Your task to perform on an android device: change the clock style Image 0: 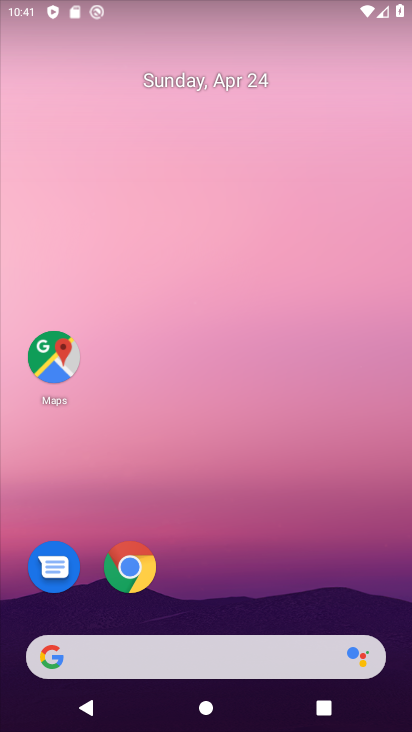
Step 0: drag from (247, 618) to (240, 22)
Your task to perform on an android device: change the clock style Image 1: 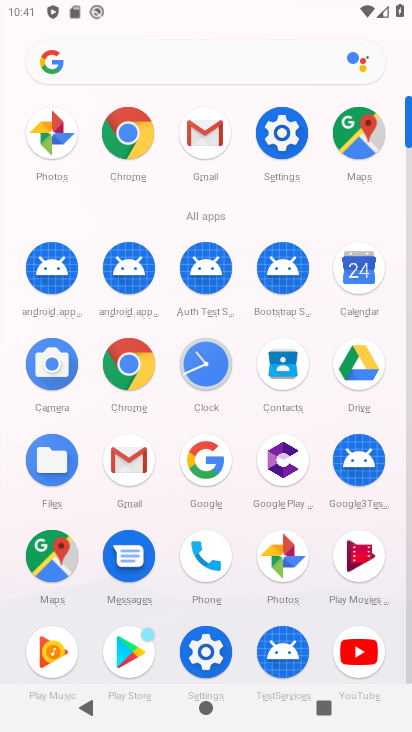
Step 1: drag from (306, 595) to (327, 133)
Your task to perform on an android device: change the clock style Image 2: 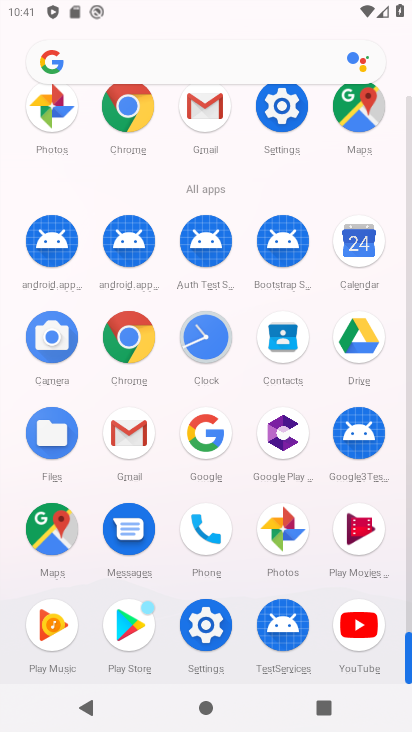
Step 2: click (200, 328)
Your task to perform on an android device: change the clock style Image 3: 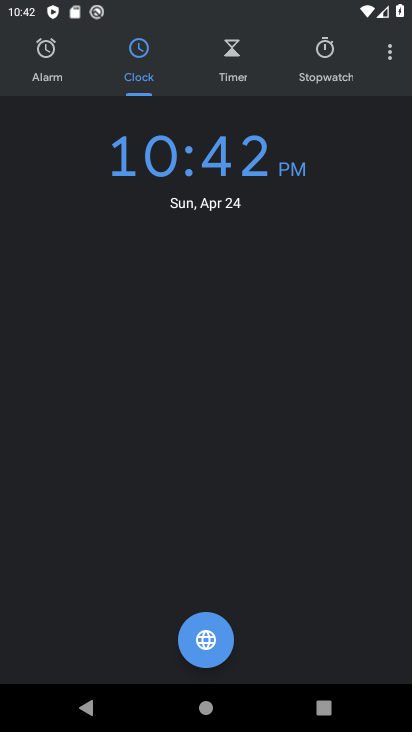
Step 3: click (391, 62)
Your task to perform on an android device: change the clock style Image 4: 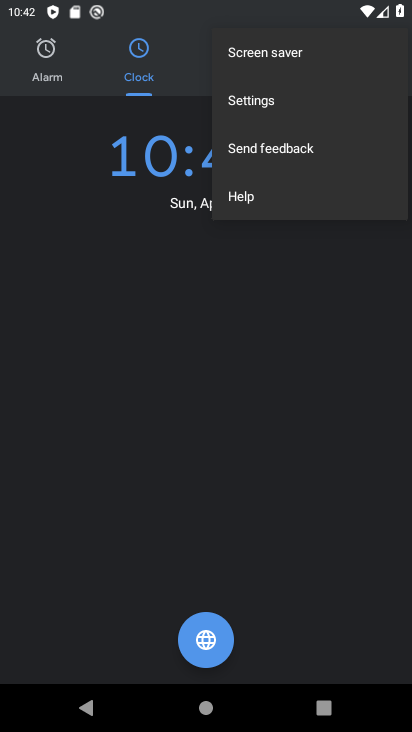
Step 4: click (281, 123)
Your task to perform on an android device: change the clock style Image 5: 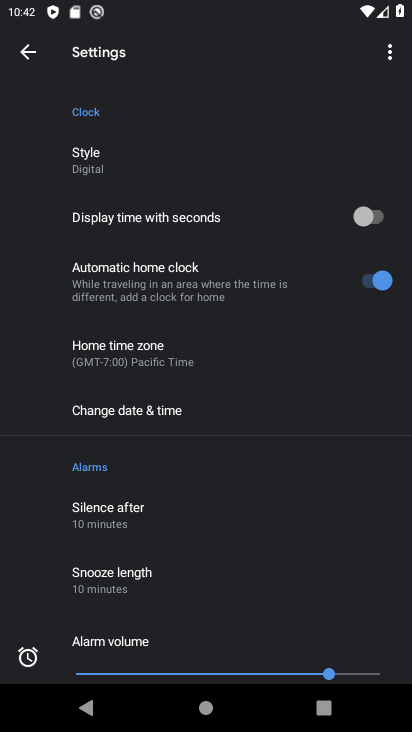
Step 5: click (126, 175)
Your task to perform on an android device: change the clock style Image 6: 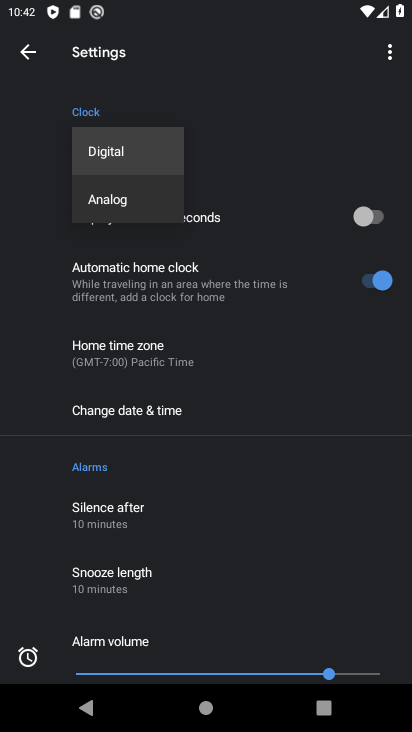
Step 6: click (100, 202)
Your task to perform on an android device: change the clock style Image 7: 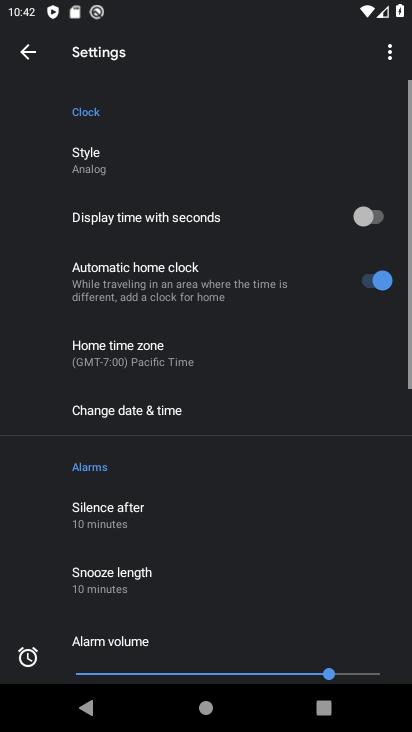
Step 7: task complete